Your task to perform on an android device: Go to Wikipedia Image 0: 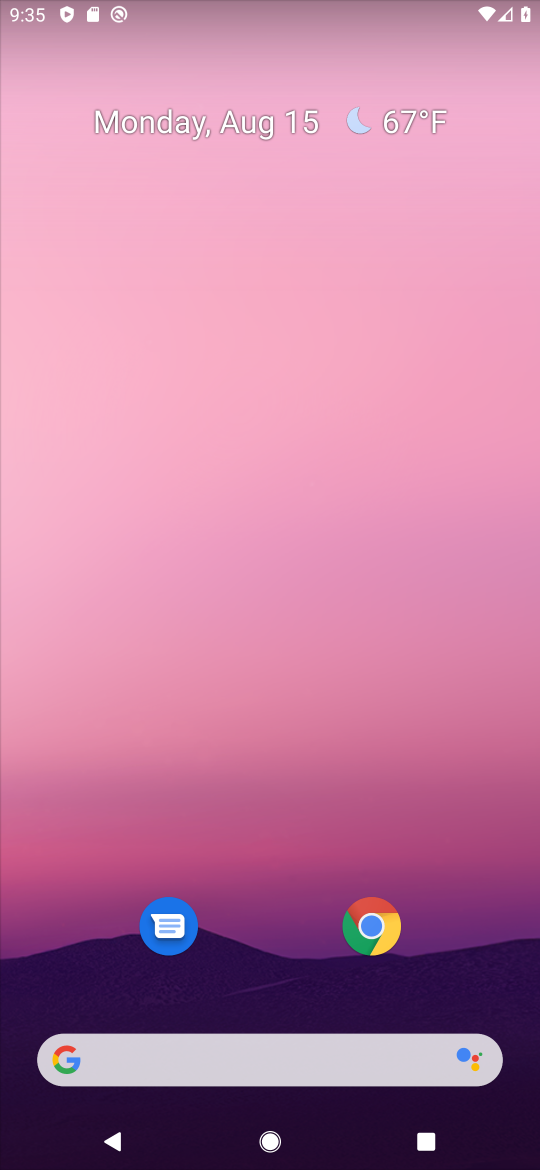
Step 0: press home button
Your task to perform on an android device: Go to Wikipedia Image 1: 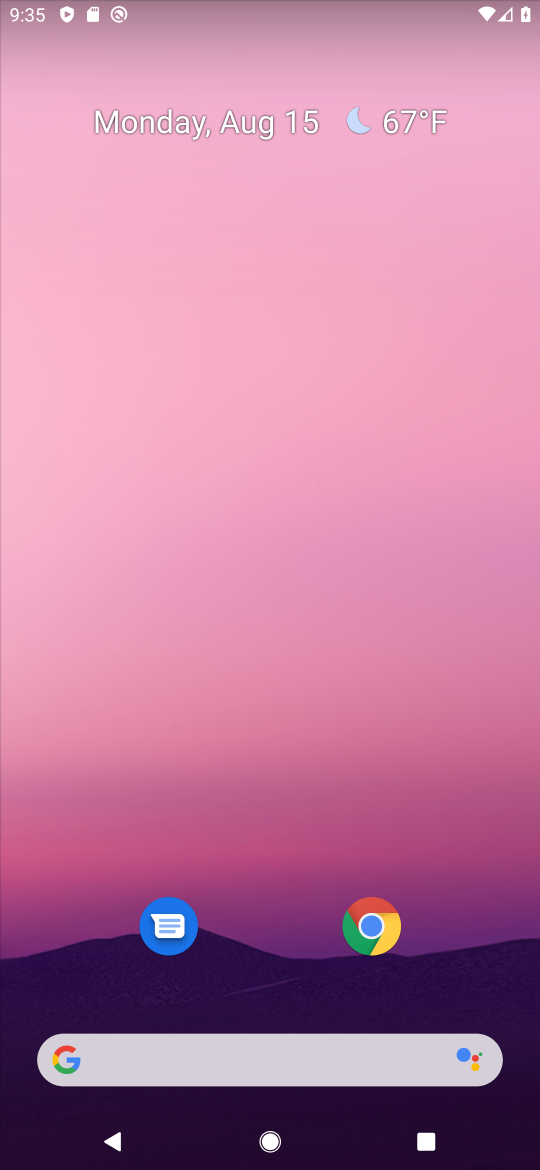
Step 1: drag from (302, 1014) to (1, 0)
Your task to perform on an android device: Go to Wikipedia Image 2: 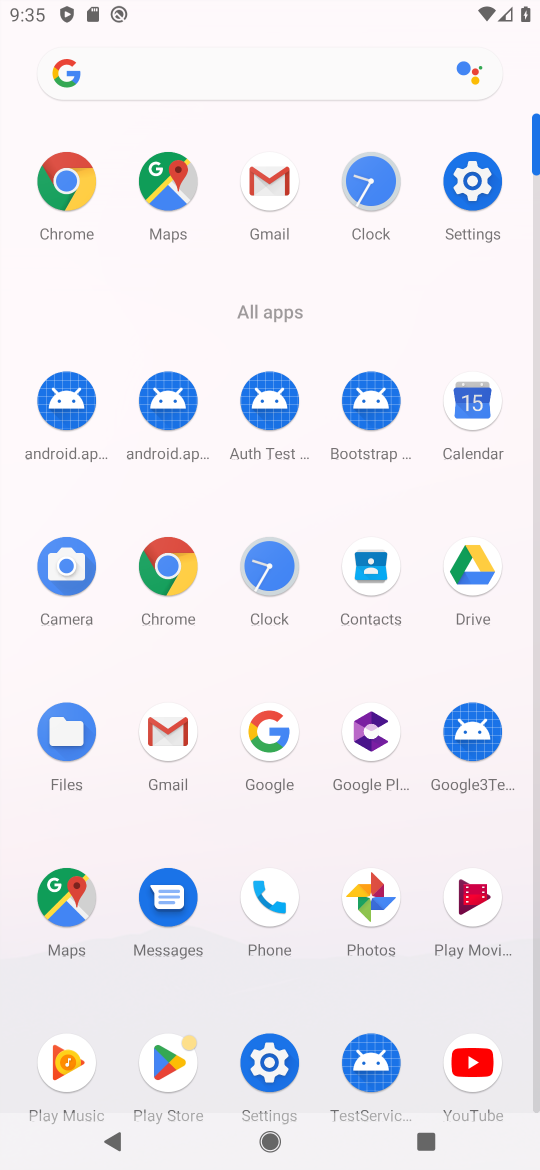
Step 2: click (164, 592)
Your task to perform on an android device: Go to Wikipedia Image 3: 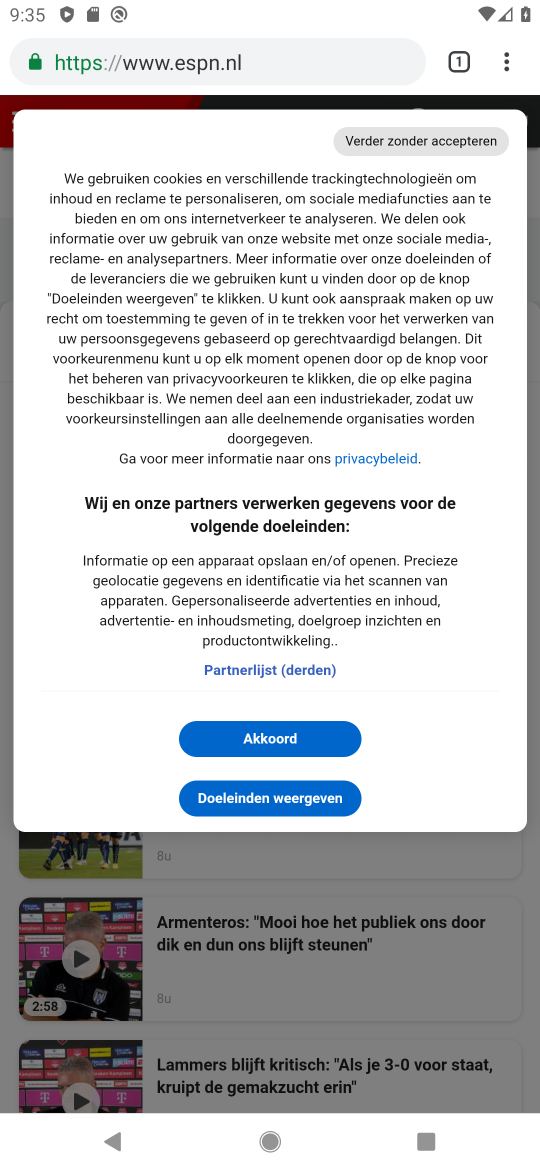
Step 3: click (246, 66)
Your task to perform on an android device: Go to Wikipedia Image 4: 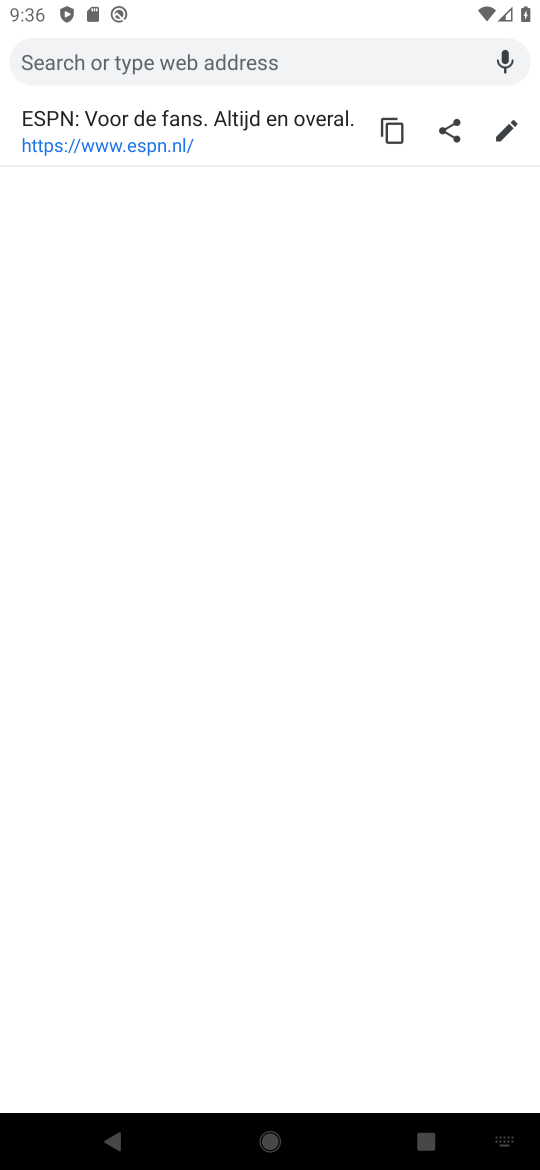
Step 4: type " Wikipedia"
Your task to perform on an android device: Go to Wikipedia Image 5: 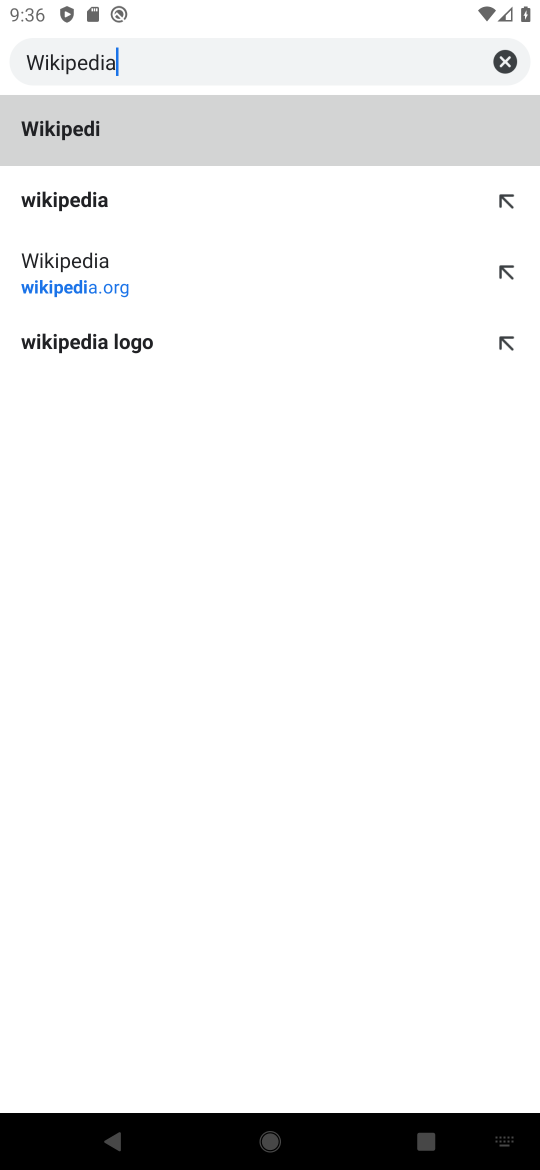
Step 5: type ""
Your task to perform on an android device: Go to Wikipedia Image 6: 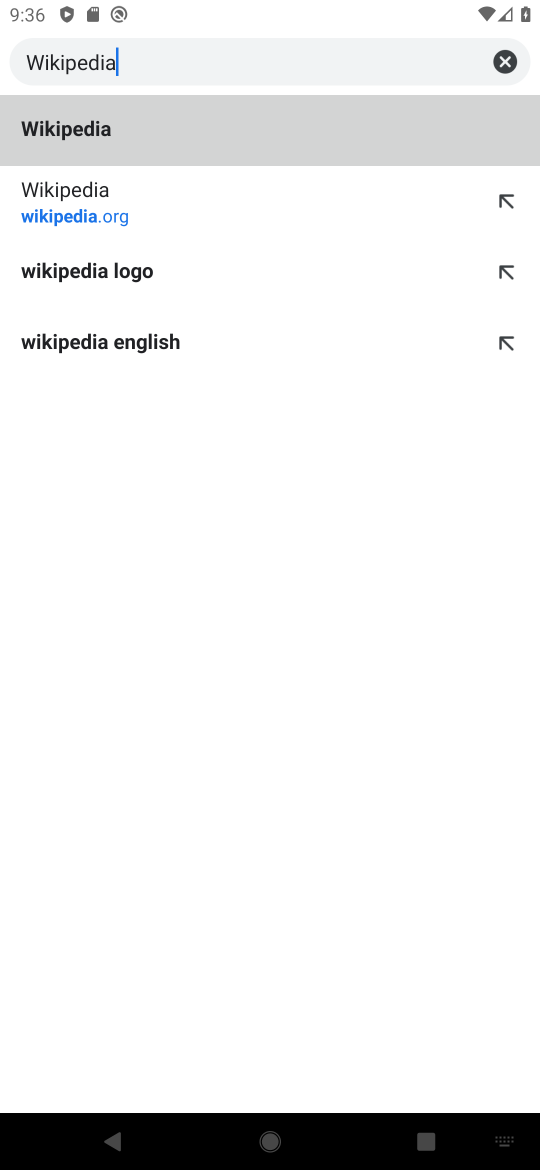
Step 6: click (79, 215)
Your task to perform on an android device: Go to Wikipedia Image 7: 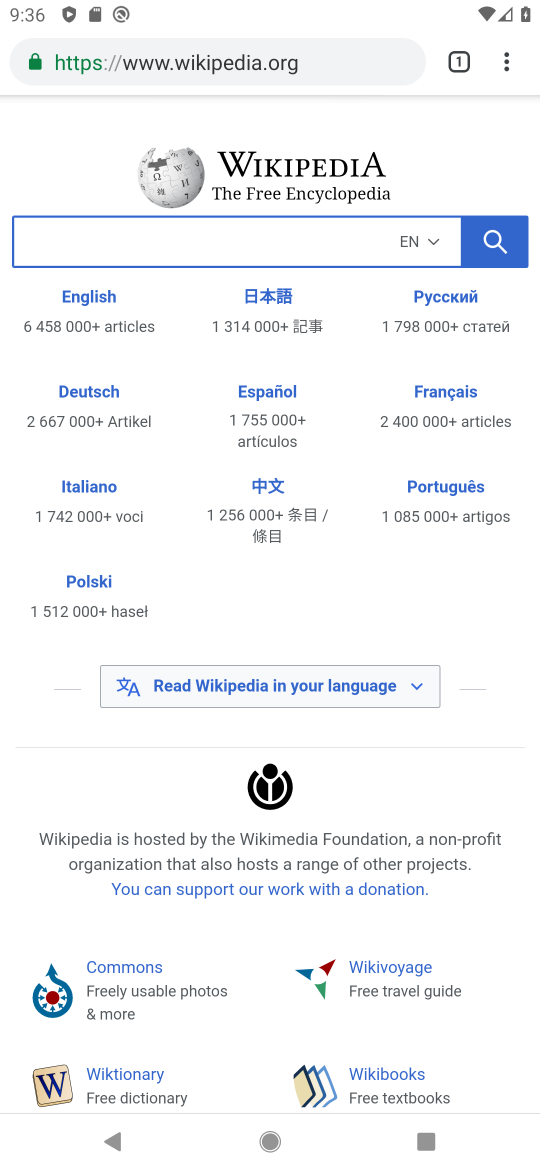
Step 7: task complete